Your task to perform on an android device: Search for sushi restaurants on Maps Image 0: 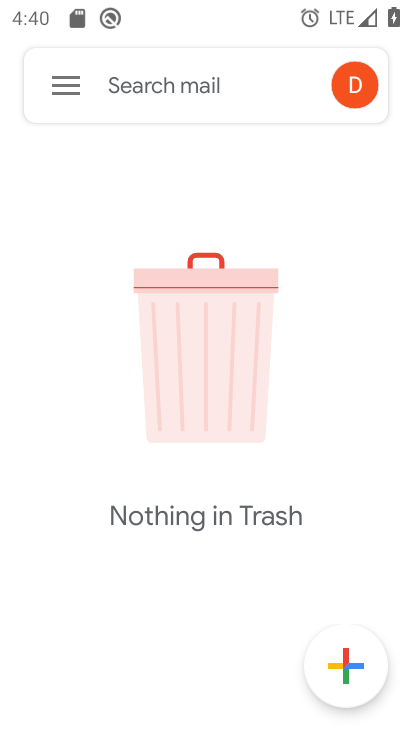
Step 0: press home button
Your task to perform on an android device: Search for sushi restaurants on Maps Image 1: 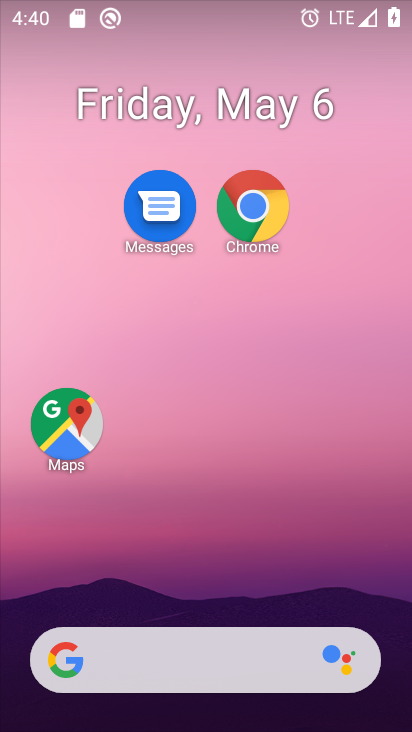
Step 1: drag from (197, 612) to (195, 315)
Your task to perform on an android device: Search for sushi restaurants on Maps Image 2: 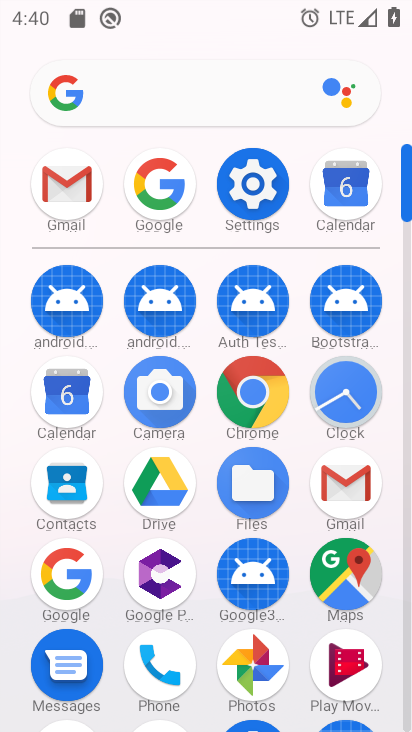
Step 2: click (328, 584)
Your task to perform on an android device: Search for sushi restaurants on Maps Image 3: 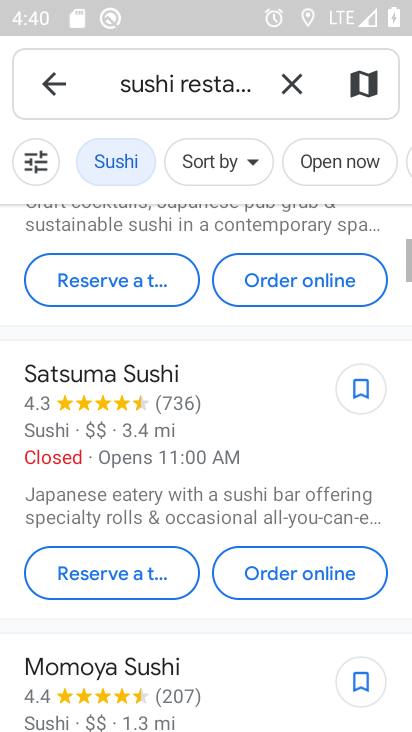
Step 3: task complete